Your task to perform on an android device: Open calendar and show me the fourth week of next month Image 0: 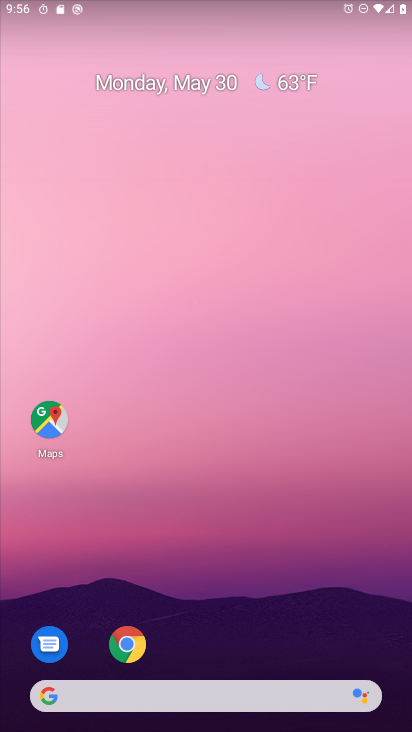
Step 0: drag from (204, 606) to (224, 37)
Your task to perform on an android device: Open calendar and show me the fourth week of next month Image 1: 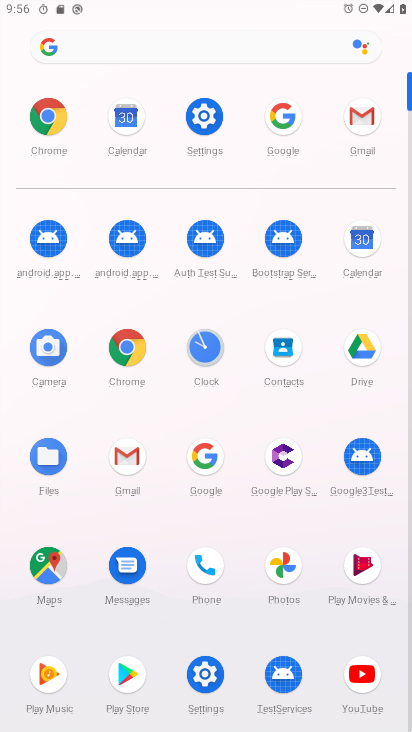
Step 1: click (360, 242)
Your task to perform on an android device: Open calendar and show me the fourth week of next month Image 2: 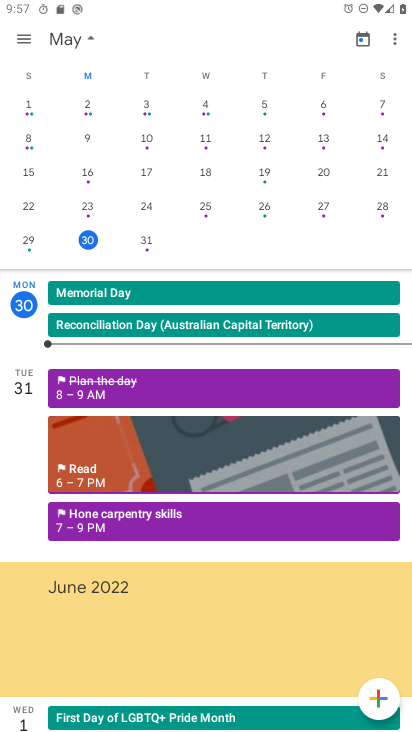
Step 2: drag from (385, 250) to (2, 162)
Your task to perform on an android device: Open calendar and show me the fourth week of next month Image 3: 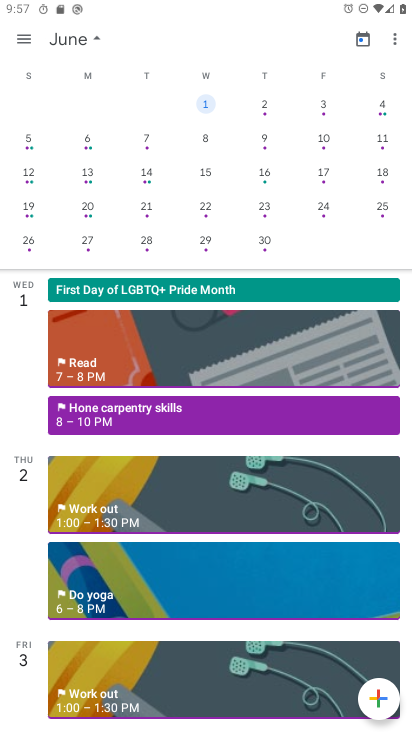
Step 3: click (208, 205)
Your task to perform on an android device: Open calendar and show me the fourth week of next month Image 4: 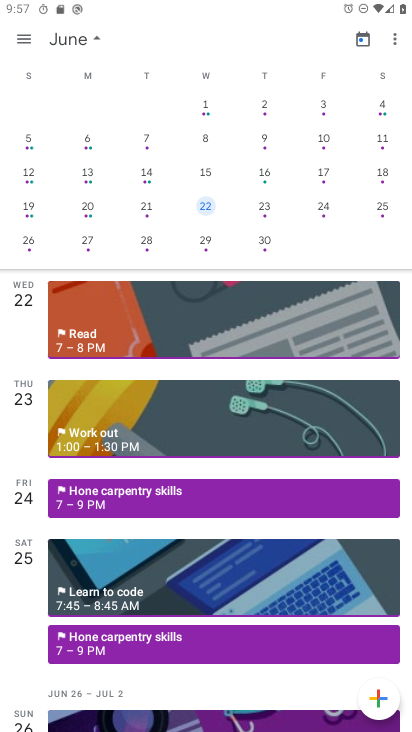
Step 4: task complete